Your task to perform on an android device: turn on javascript in the chrome app Image 0: 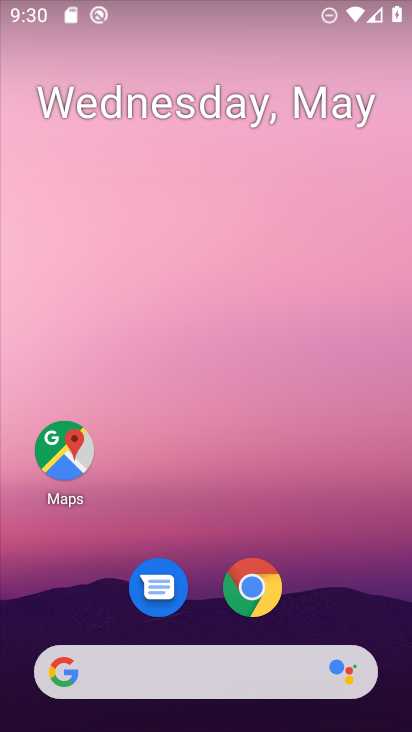
Step 0: click (250, 589)
Your task to perform on an android device: turn on javascript in the chrome app Image 1: 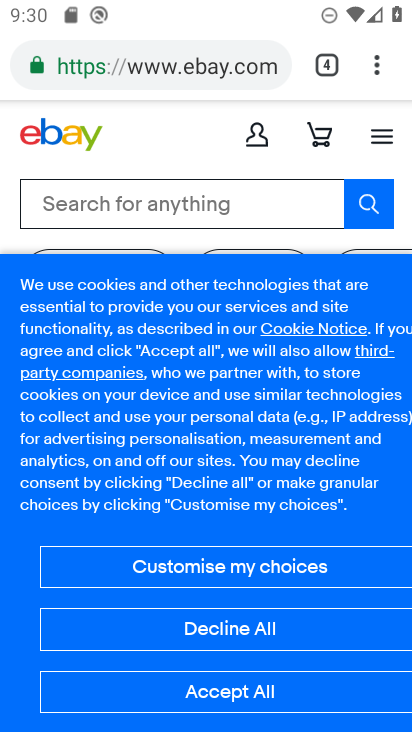
Step 1: click (376, 75)
Your task to perform on an android device: turn on javascript in the chrome app Image 2: 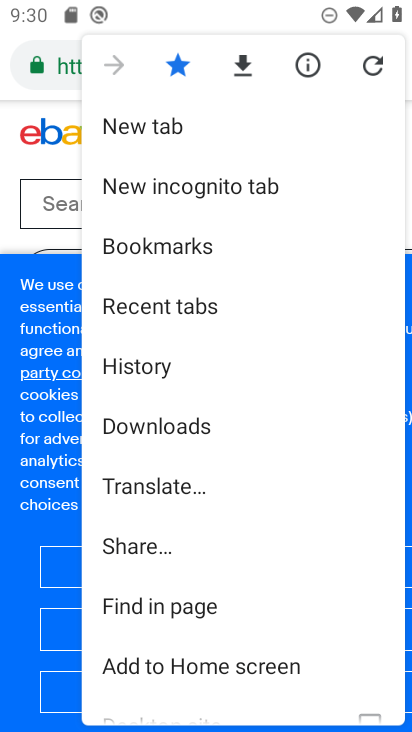
Step 2: drag from (177, 622) to (179, 297)
Your task to perform on an android device: turn on javascript in the chrome app Image 3: 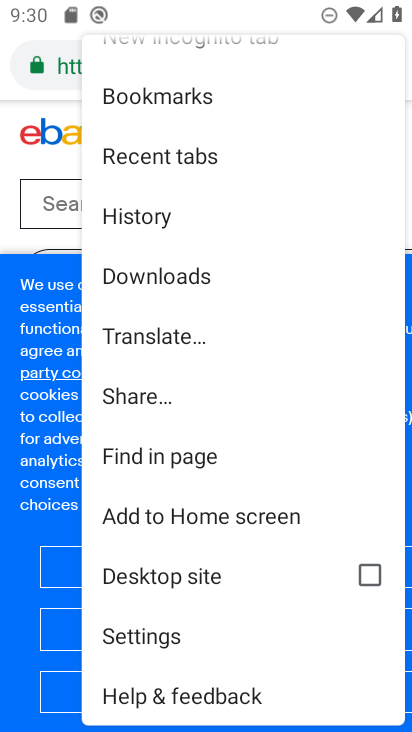
Step 3: click (153, 636)
Your task to perform on an android device: turn on javascript in the chrome app Image 4: 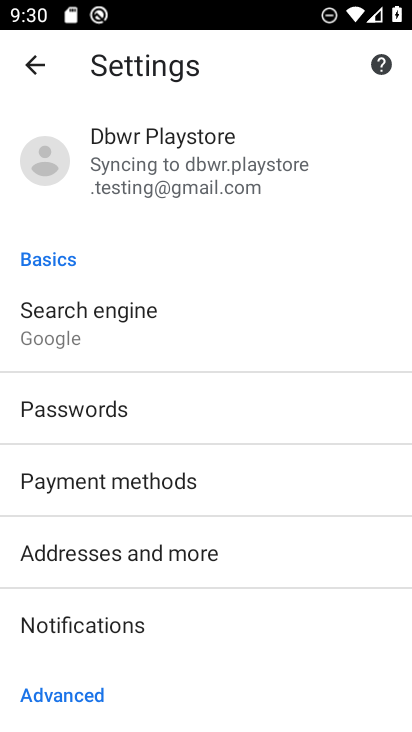
Step 4: drag from (152, 672) to (171, 347)
Your task to perform on an android device: turn on javascript in the chrome app Image 5: 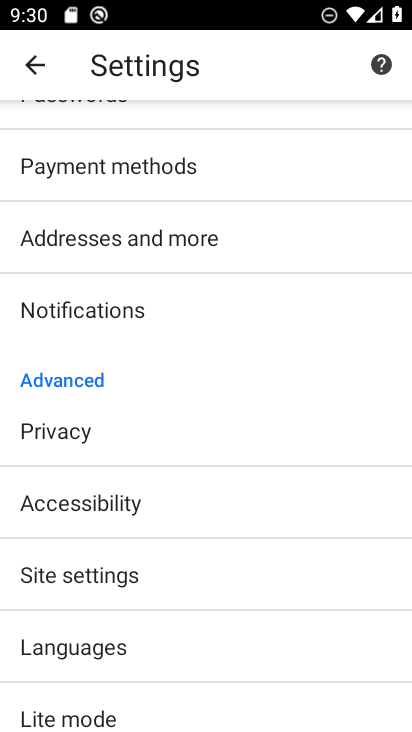
Step 5: click (103, 571)
Your task to perform on an android device: turn on javascript in the chrome app Image 6: 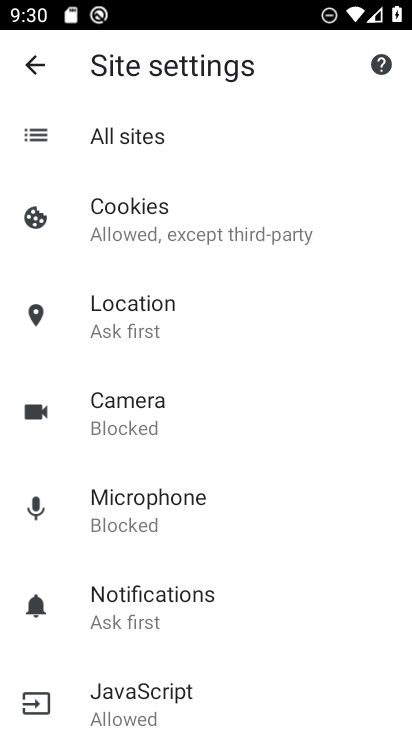
Step 6: click (152, 684)
Your task to perform on an android device: turn on javascript in the chrome app Image 7: 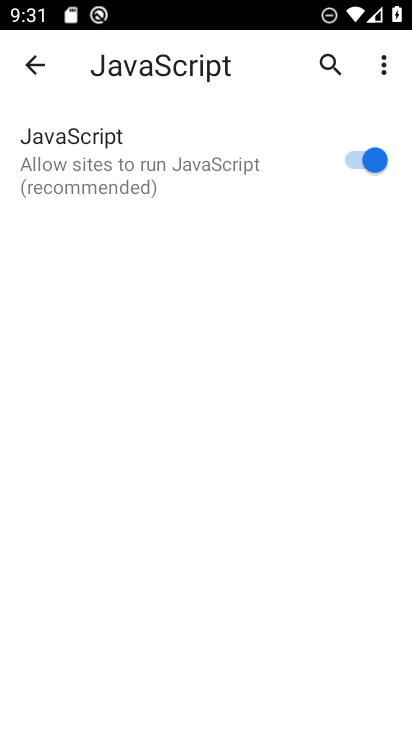
Step 7: task complete